Your task to perform on an android device: Open Youtube and go to "Your channel" Image 0: 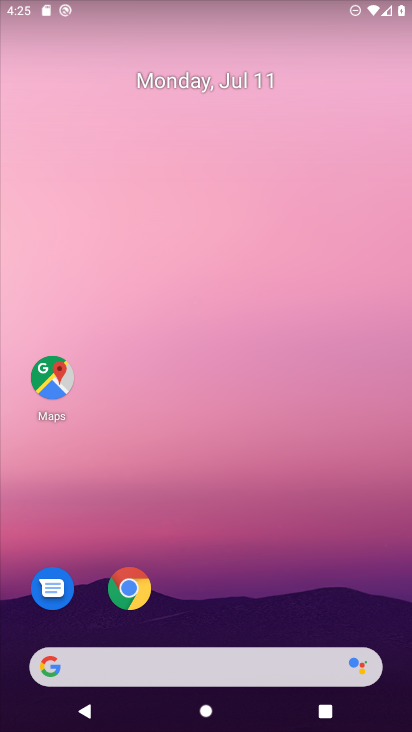
Step 0: drag from (236, 519) to (247, 29)
Your task to perform on an android device: Open Youtube and go to "Your channel" Image 1: 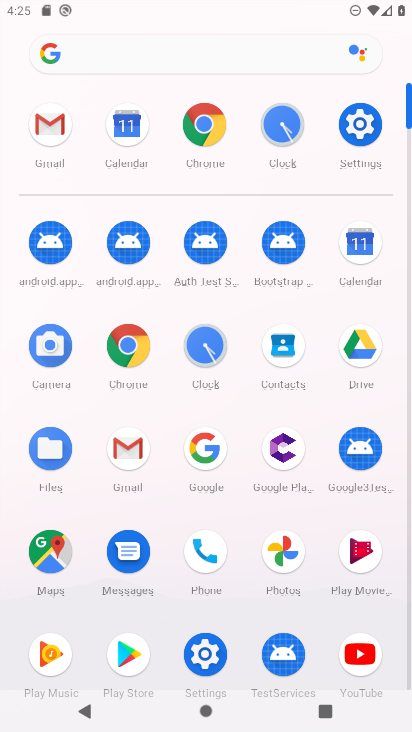
Step 1: click (360, 659)
Your task to perform on an android device: Open Youtube and go to "Your channel" Image 2: 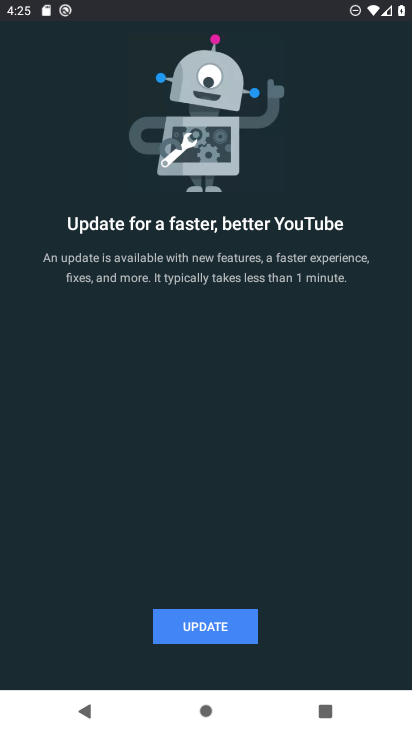
Step 2: click (182, 628)
Your task to perform on an android device: Open Youtube and go to "Your channel" Image 3: 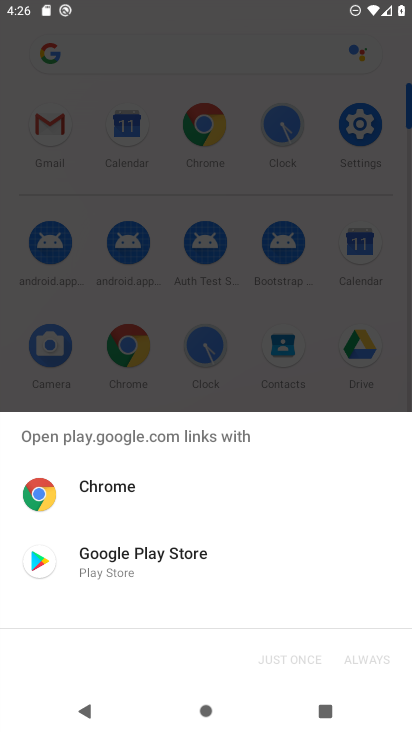
Step 3: click (113, 566)
Your task to perform on an android device: Open Youtube and go to "Your channel" Image 4: 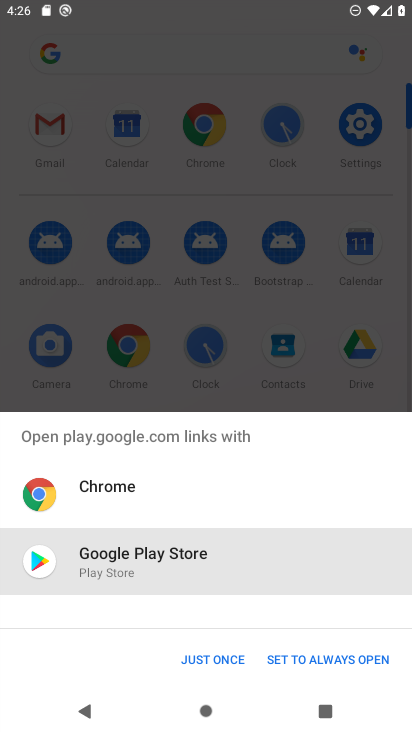
Step 4: click (210, 659)
Your task to perform on an android device: Open Youtube and go to "Your channel" Image 5: 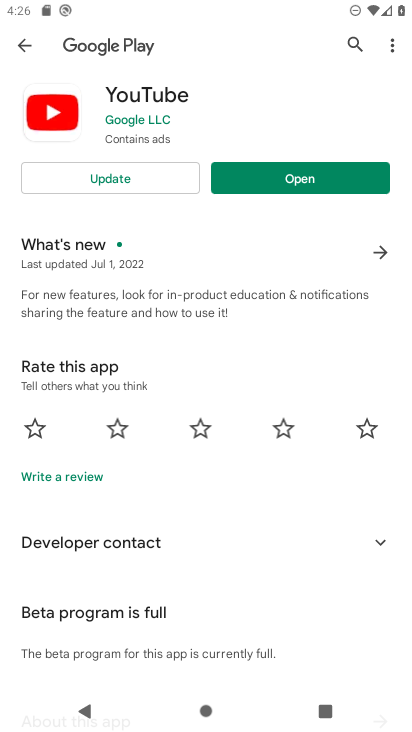
Step 5: click (137, 187)
Your task to perform on an android device: Open Youtube and go to "Your channel" Image 6: 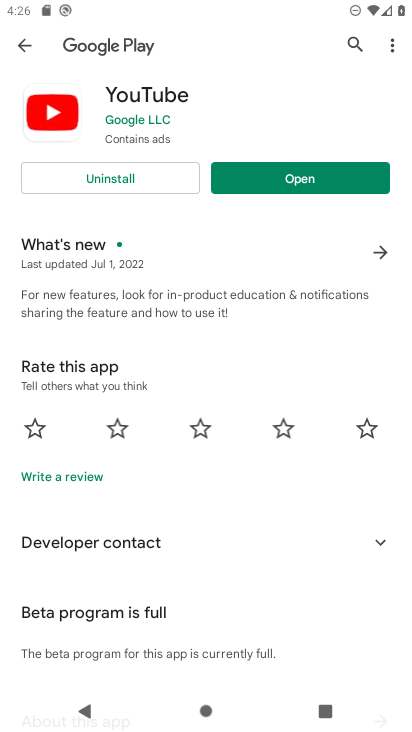
Step 6: click (294, 188)
Your task to perform on an android device: Open Youtube and go to "Your channel" Image 7: 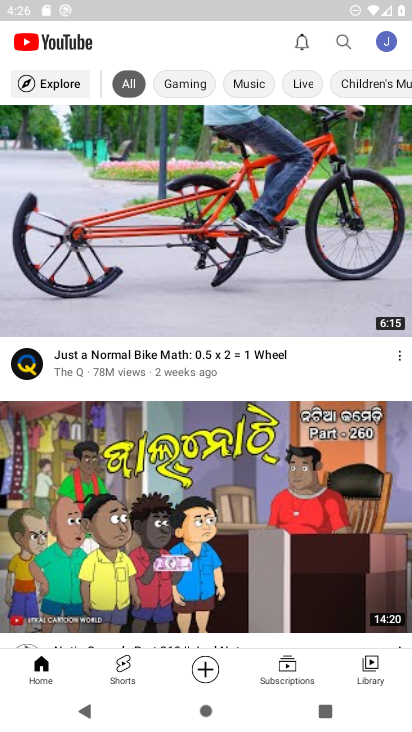
Step 7: click (388, 39)
Your task to perform on an android device: Open Youtube and go to "Your channel" Image 8: 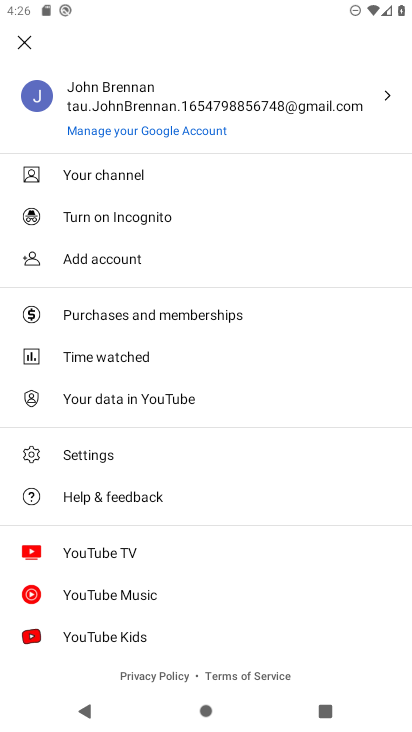
Step 8: click (100, 178)
Your task to perform on an android device: Open Youtube and go to "Your channel" Image 9: 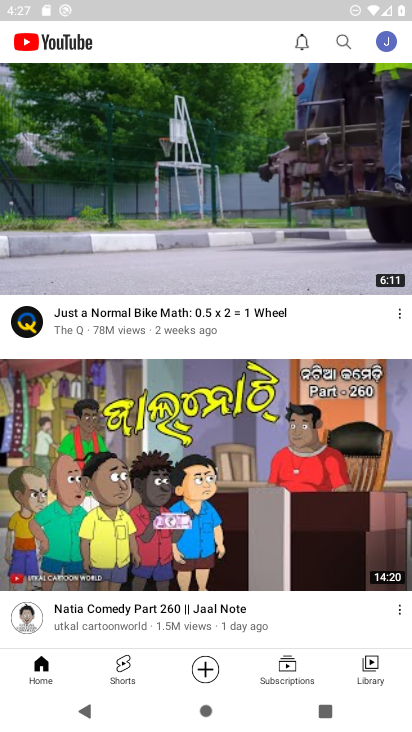
Step 9: task complete